Your task to perform on an android device: toggle wifi Image 0: 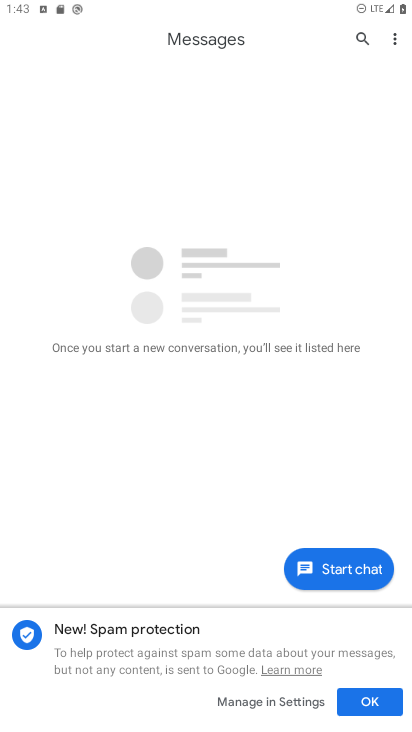
Step 0: press home button
Your task to perform on an android device: toggle wifi Image 1: 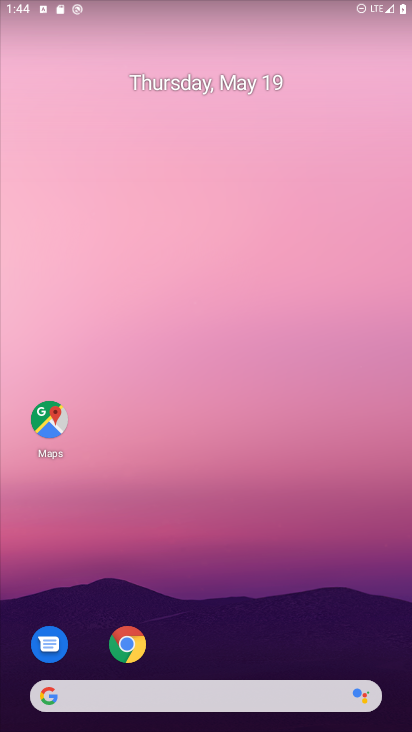
Step 1: drag from (204, 6) to (243, 249)
Your task to perform on an android device: toggle wifi Image 2: 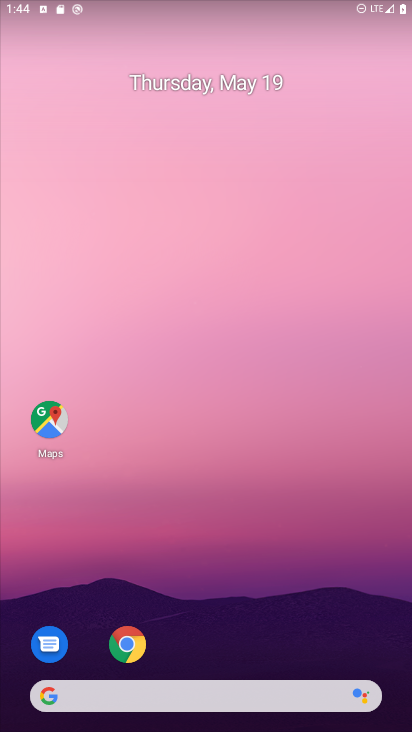
Step 2: drag from (141, 2) to (252, 585)
Your task to perform on an android device: toggle wifi Image 3: 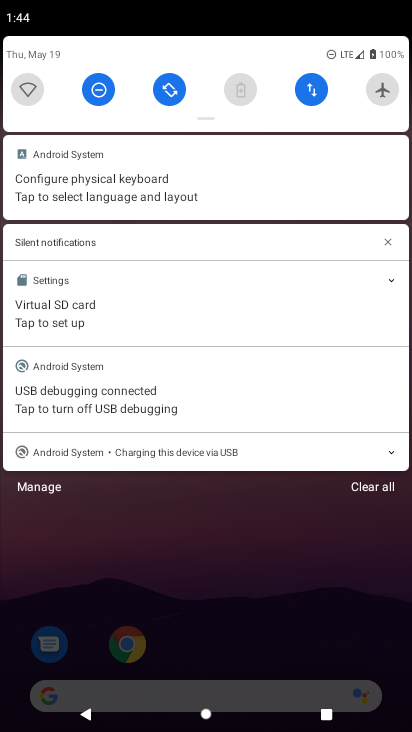
Step 3: click (29, 94)
Your task to perform on an android device: toggle wifi Image 4: 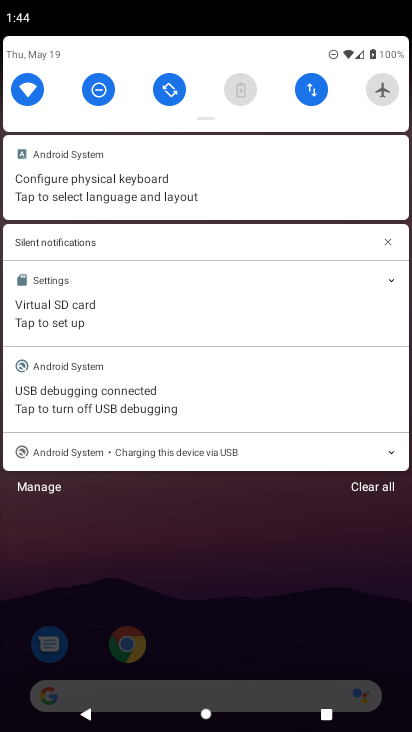
Step 4: task complete